Your task to perform on an android device: Go to ESPN.com Image 0: 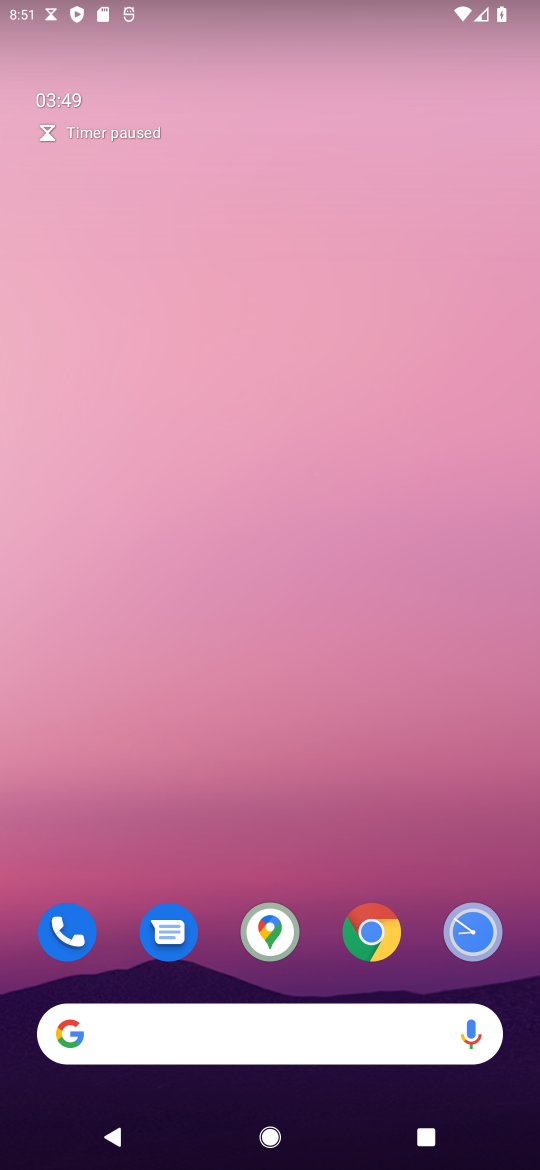
Step 0: click (374, 934)
Your task to perform on an android device: Go to ESPN.com Image 1: 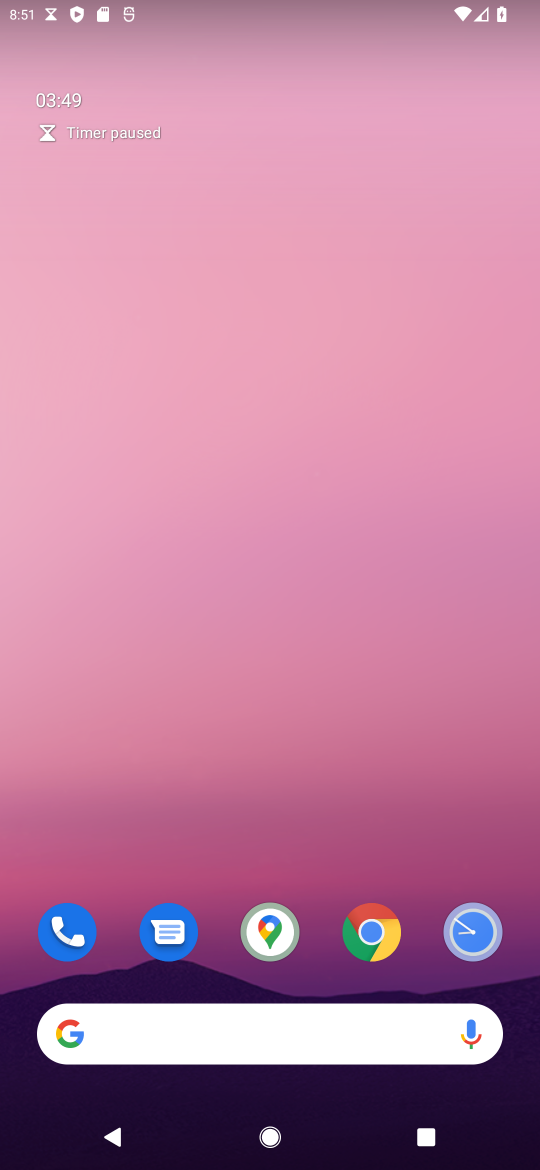
Step 1: click (374, 934)
Your task to perform on an android device: Go to ESPN.com Image 2: 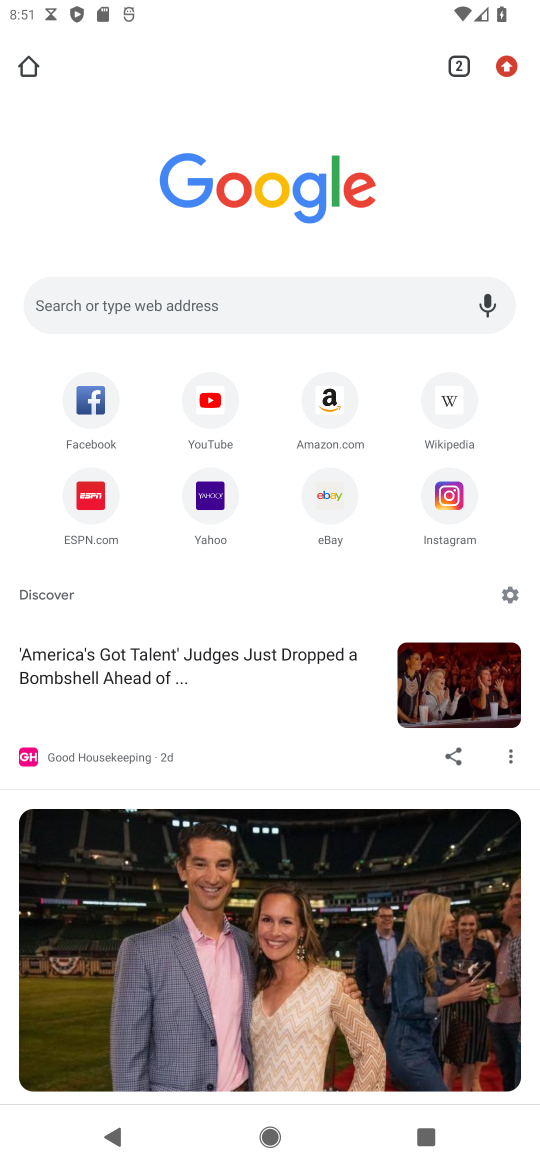
Step 2: click (78, 498)
Your task to perform on an android device: Go to ESPN.com Image 3: 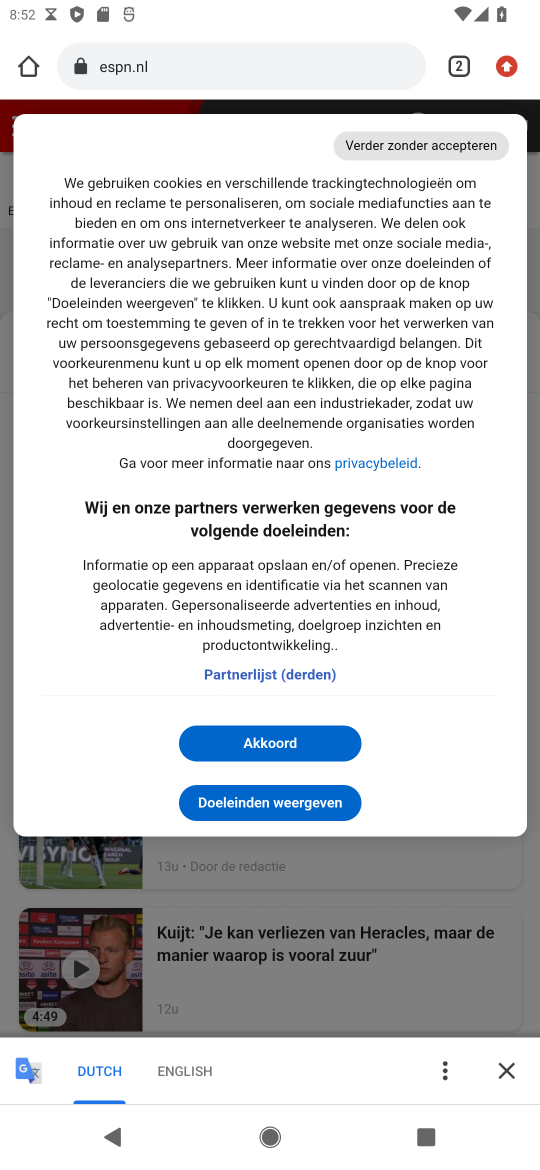
Step 3: click (284, 743)
Your task to perform on an android device: Go to ESPN.com Image 4: 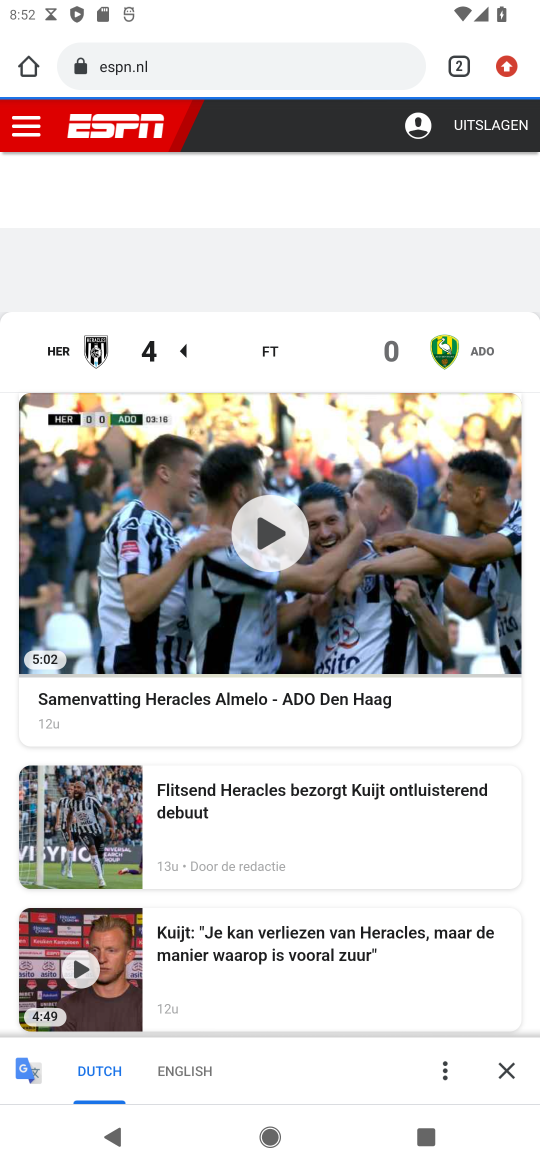
Step 4: task complete